Your task to perform on an android device: show emergency info Image 0: 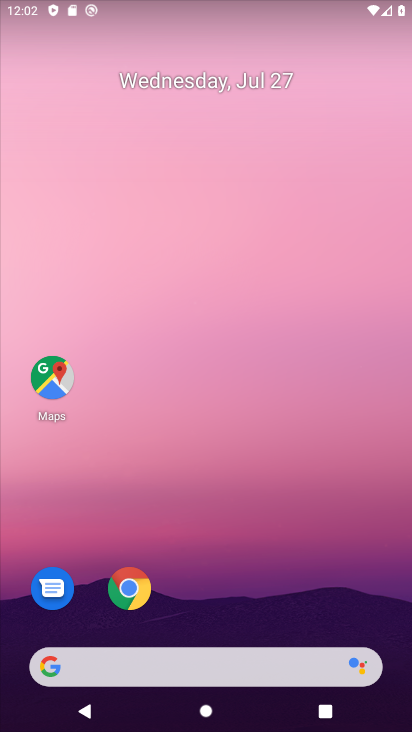
Step 0: drag from (210, 622) to (139, 0)
Your task to perform on an android device: show emergency info Image 1: 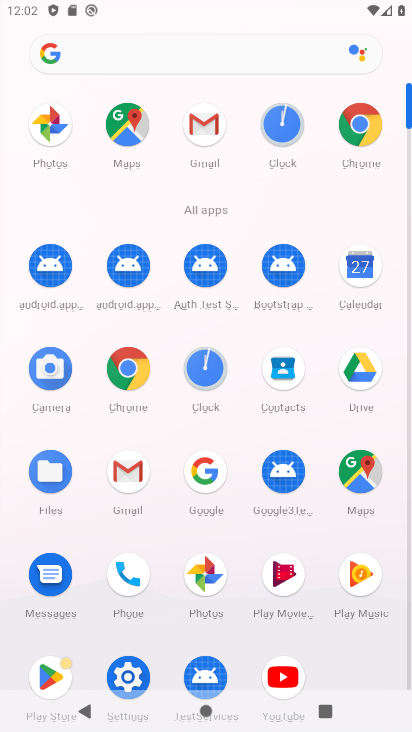
Step 1: click (122, 681)
Your task to perform on an android device: show emergency info Image 2: 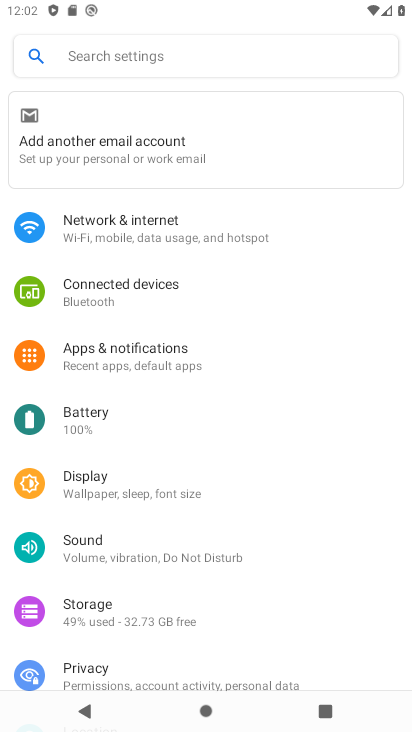
Step 2: drag from (198, 653) to (135, 152)
Your task to perform on an android device: show emergency info Image 3: 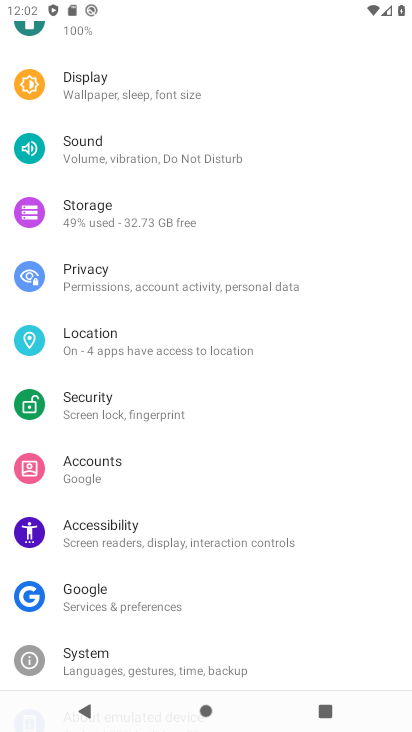
Step 3: drag from (235, 659) to (190, 256)
Your task to perform on an android device: show emergency info Image 4: 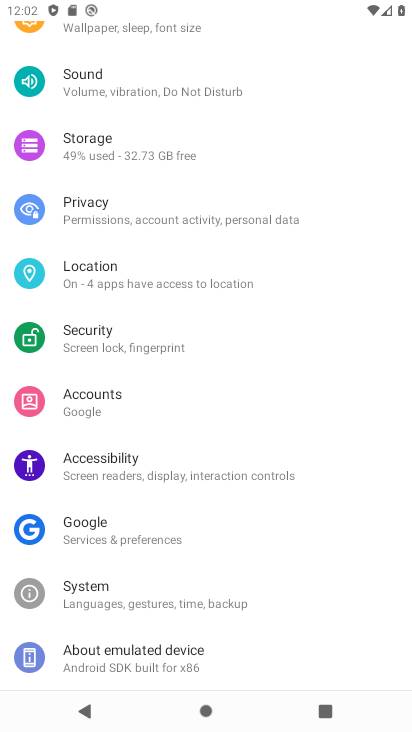
Step 4: click (204, 666)
Your task to perform on an android device: show emergency info Image 5: 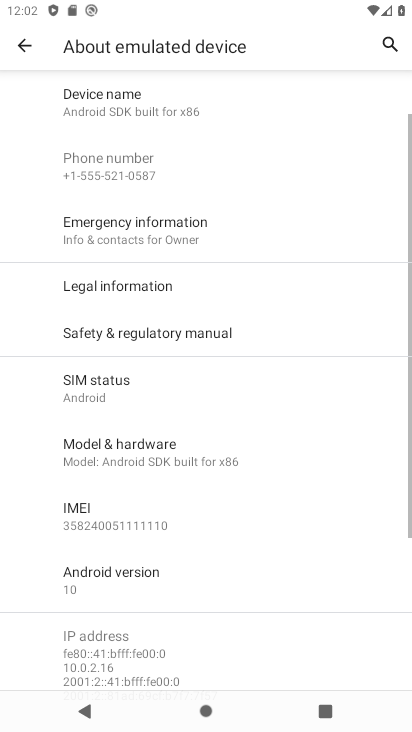
Step 5: click (131, 235)
Your task to perform on an android device: show emergency info Image 6: 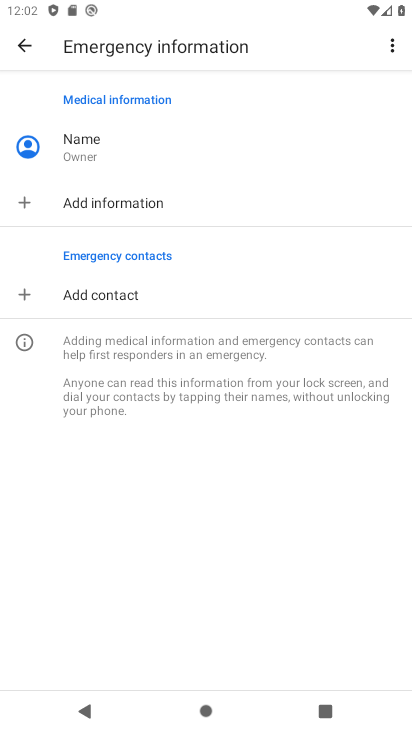
Step 6: task complete